Your task to perform on an android device: Go to Google maps Image 0: 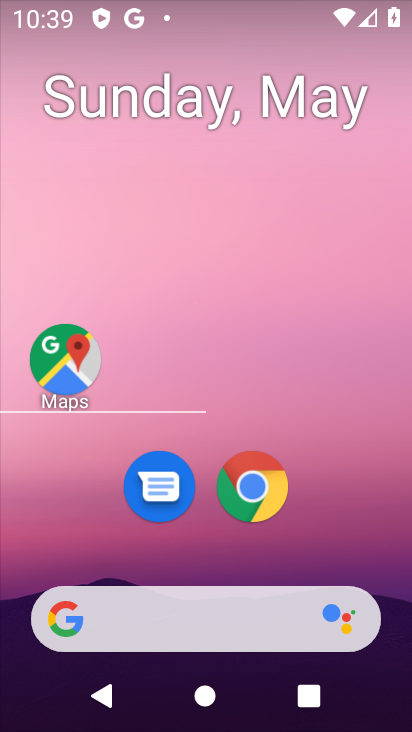
Step 0: click (217, 192)
Your task to perform on an android device: Go to Google maps Image 1: 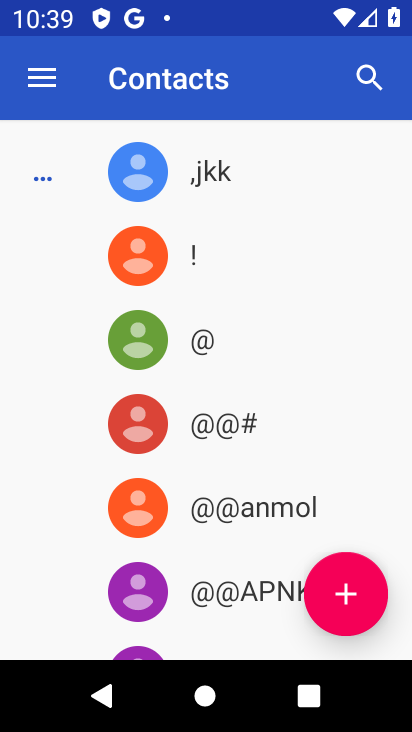
Step 1: press home button
Your task to perform on an android device: Go to Google maps Image 2: 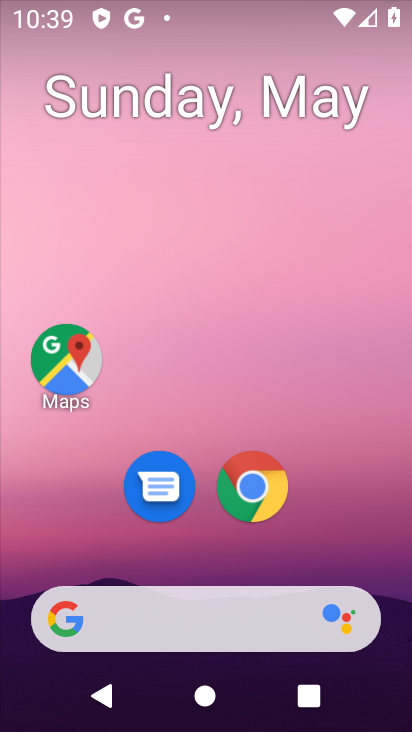
Step 2: click (227, 370)
Your task to perform on an android device: Go to Google maps Image 3: 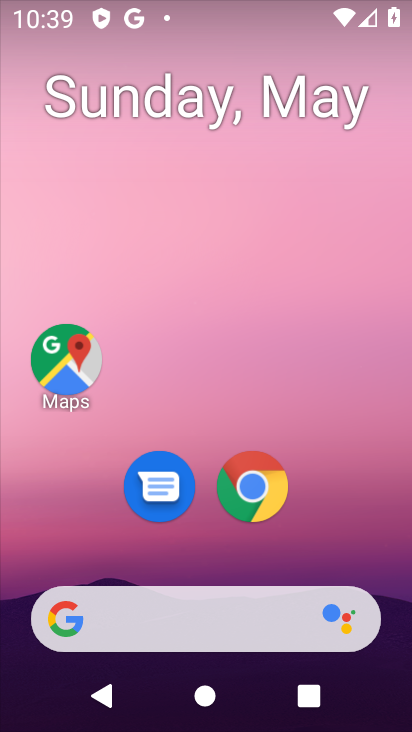
Step 3: click (149, 352)
Your task to perform on an android device: Go to Google maps Image 4: 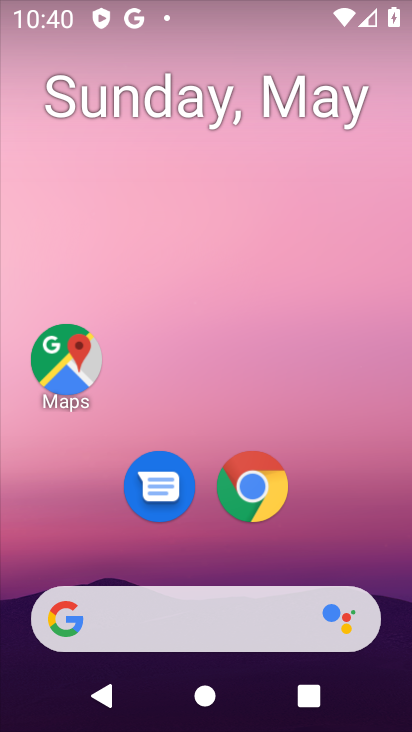
Step 4: click (69, 381)
Your task to perform on an android device: Go to Google maps Image 5: 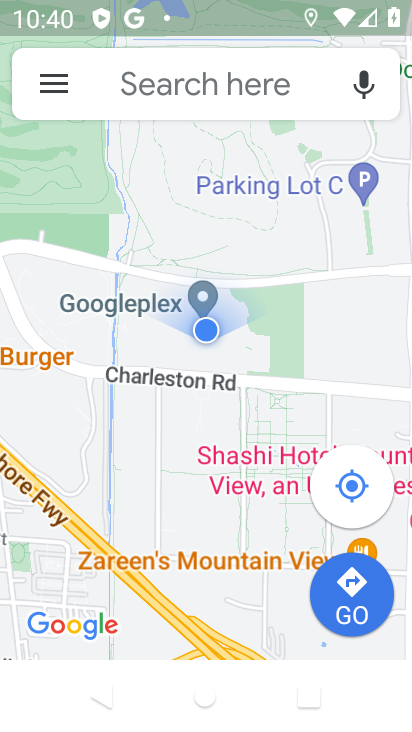
Step 5: task complete